Your task to perform on an android device: turn on improve location accuracy Image 0: 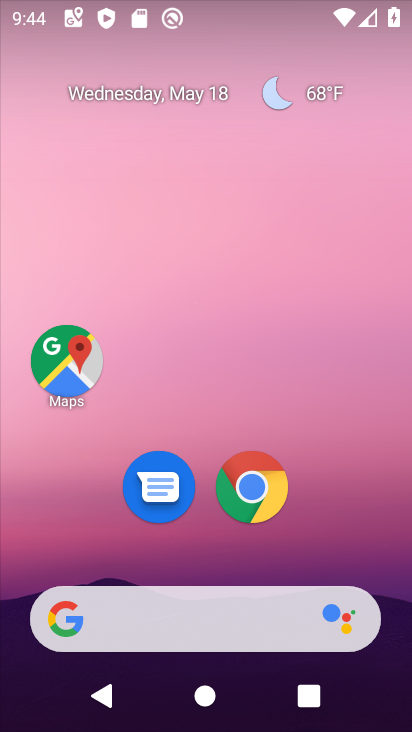
Step 0: drag from (327, 548) to (362, 115)
Your task to perform on an android device: turn on improve location accuracy Image 1: 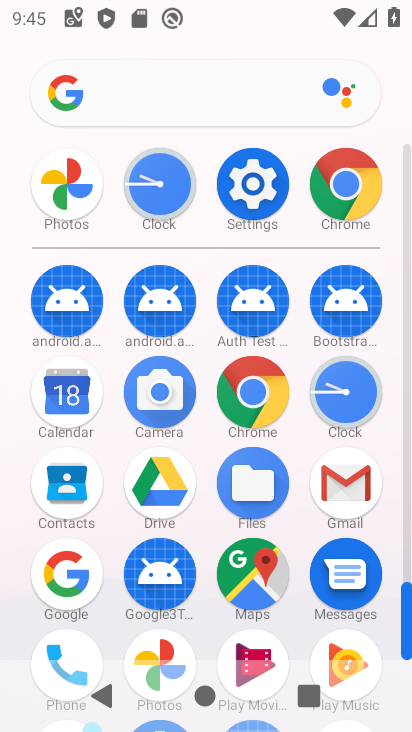
Step 1: click (236, 199)
Your task to perform on an android device: turn on improve location accuracy Image 2: 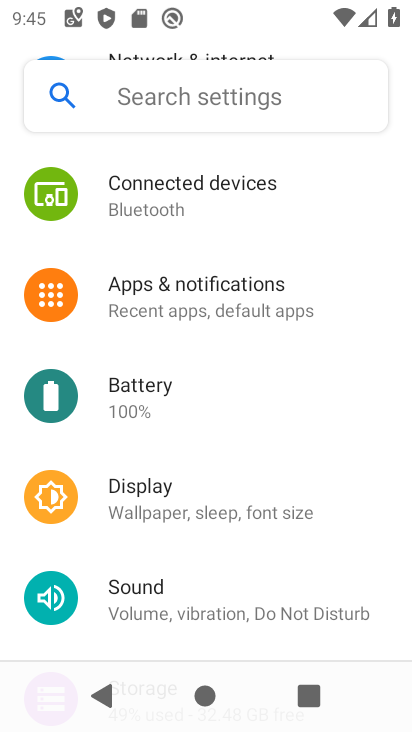
Step 2: drag from (289, 541) to (289, 235)
Your task to perform on an android device: turn on improve location accuracy Image 3: 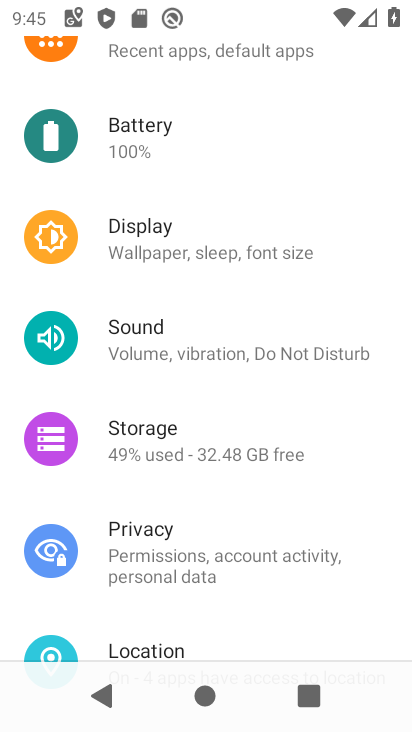
Step 3: drag from (295, 615) to (265, 319)
Your task to perform on an android device: turn on improve location accuracy Image 4: 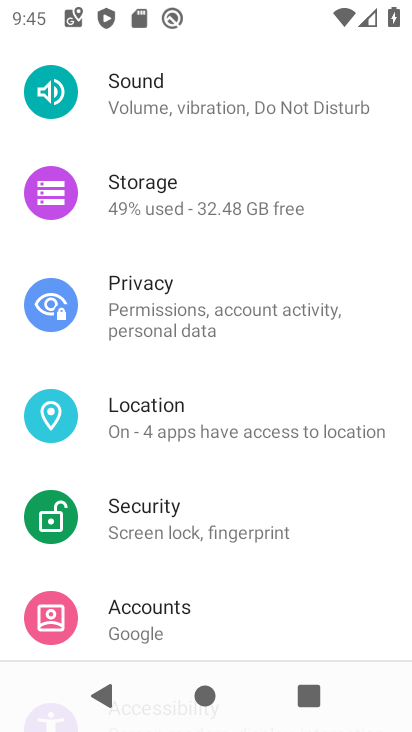
Step 4: click (241, 423)
Your task to perform on an android device: turn on improve location accuracy Image 5: 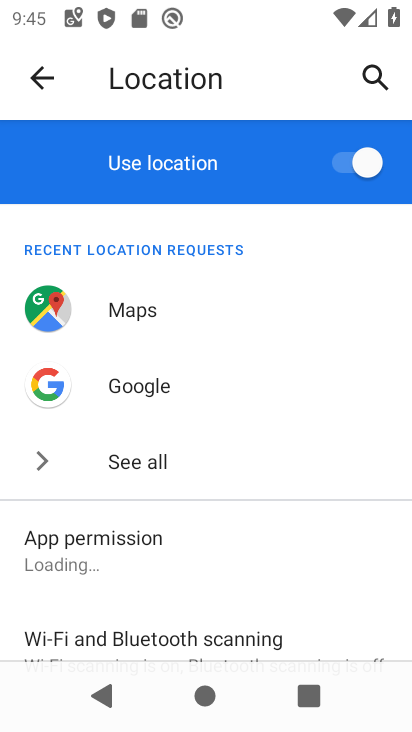
Step 5: drag from (331, 571) to (315, 271)
Your task to perform on an android device: turn on improve location accuracy Image 6: 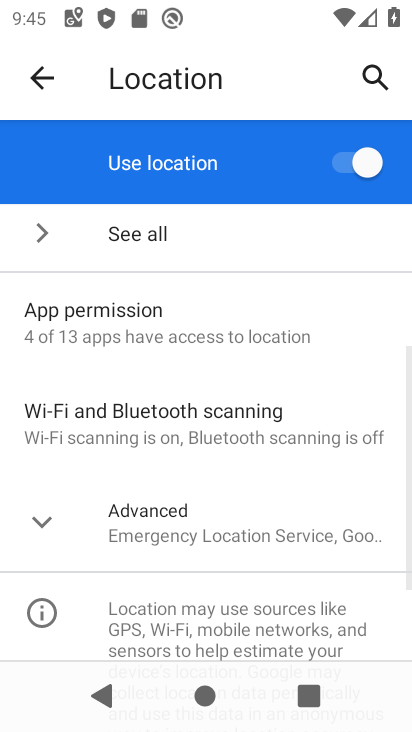
Step 6: click (281, 528)
Your task to perform on an android device: turn on improve location accuracy Image 7: 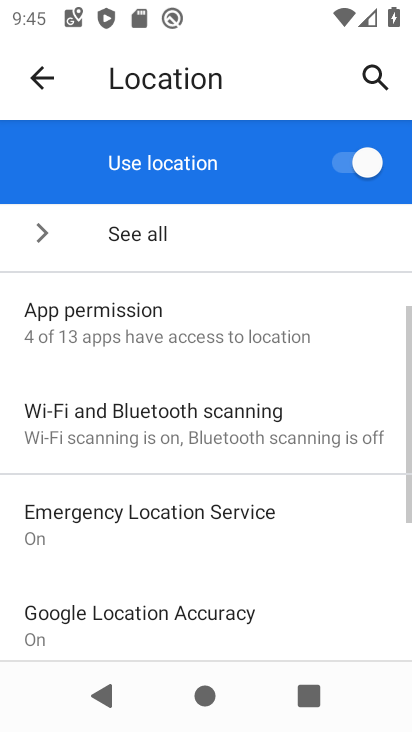
Step 7: drag from (281, 537) to (284, 286)
Your task to perform on an android device: turn on improve location accuracy Image 8: 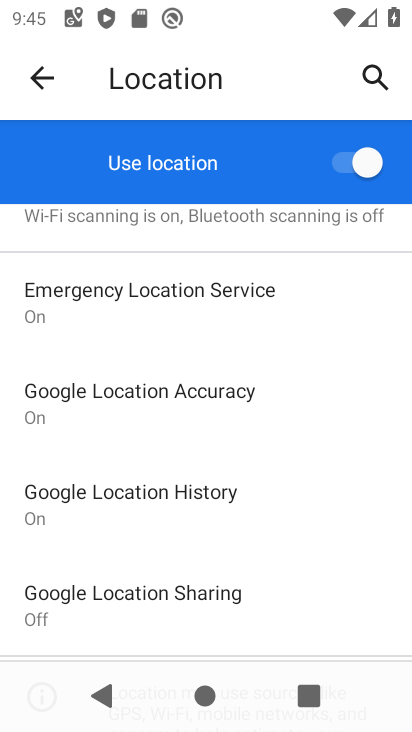
Step 8: click (209, 387)
Your task to perform on an android device: turn on improve location accuracy Image 9: 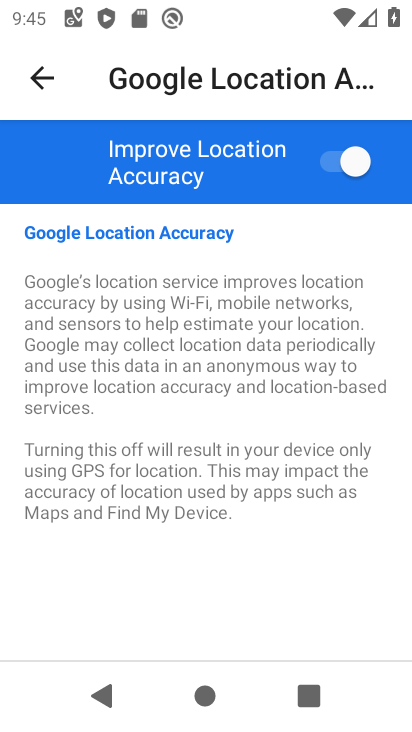
Step 9: task complete